Your task to perform on an android device: Set the phone to "Do not disturb". Image 0: 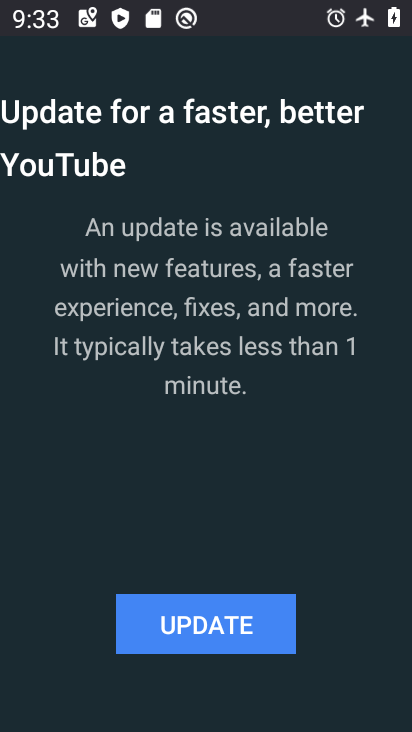
Step 0: press home button
Your task to perform on an android device: Set the phone to "Do not disturb". Image 1: 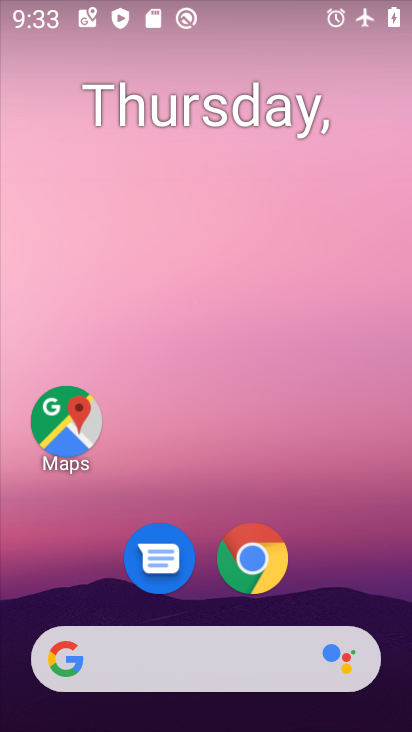
Step 1: drag from (375, 598) to (302, 152)
Your task to perform on an android device: Set the phone to "Do not disturb". Image 2: 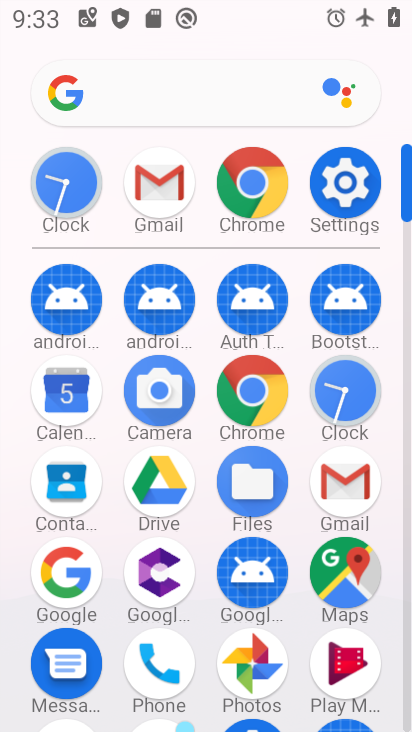
Step 2: click (405, 694)
Your task to perform on an android device: Set the phone to "Do not disturb". Image 3: 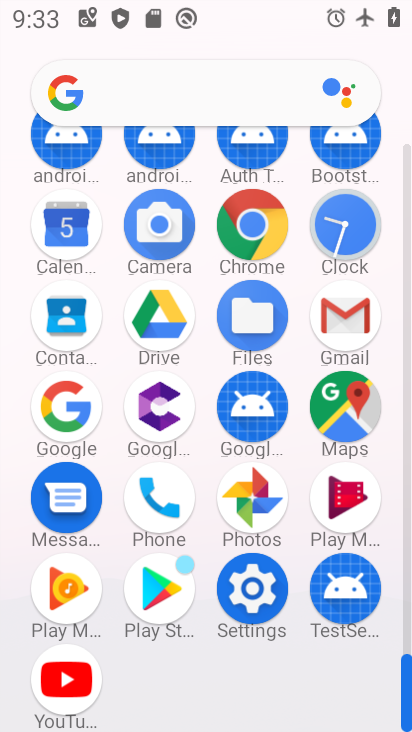
Step 3: click (252, 589)
Your task to perform on an android device: Set the phone to "Do not disturb". Image 4: 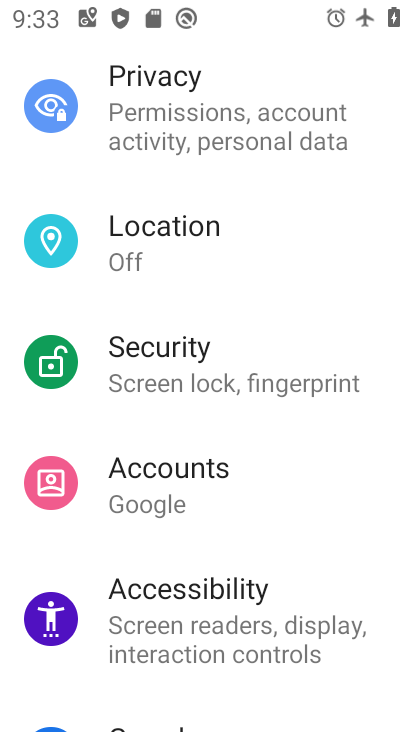
Step 4: drag from (347, 142) to (336, 479)
Your task to perform on an android device: Set the phone to "Do not disturb". Image 5: 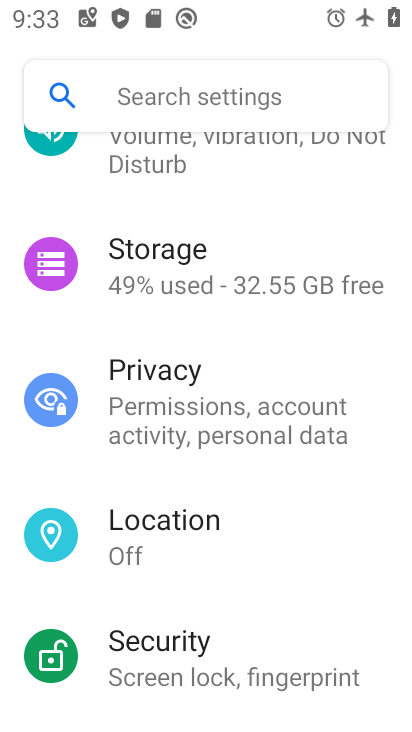
Step 5: drag from (363, 181) to (326, 486)
Your task to perform on an android device: Set the phone to "Do not disturb". Image 6: 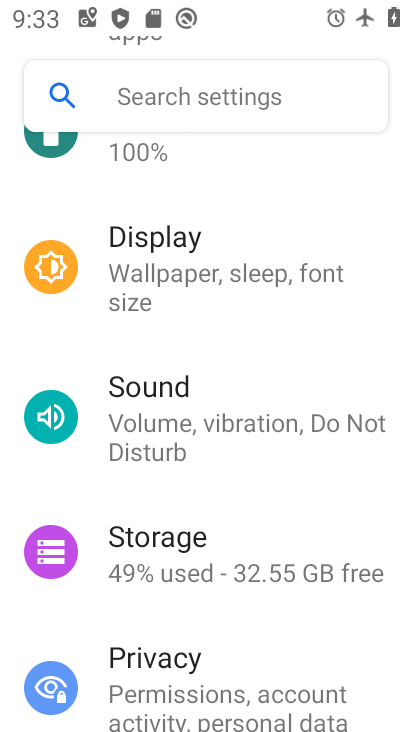
Step 6: drag from (251, 268) to (282, 224)
Your task to perform on an android device: Set the phone to "Do not disturb". Image 7: 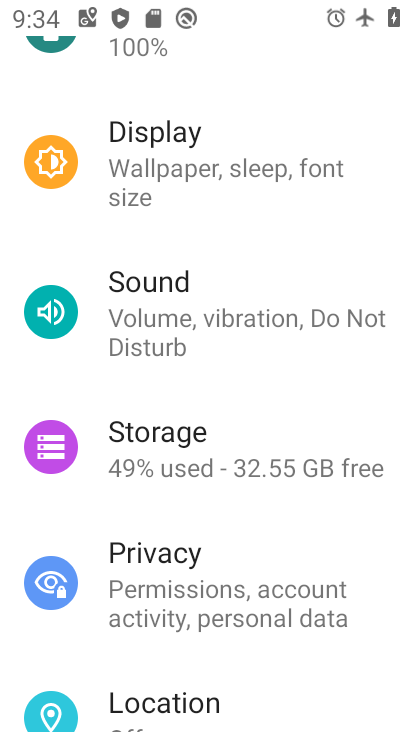
Step 7: click (170, 290)
Your task to perform on an android device: Set the phone to "Do not disturb". Image 8: 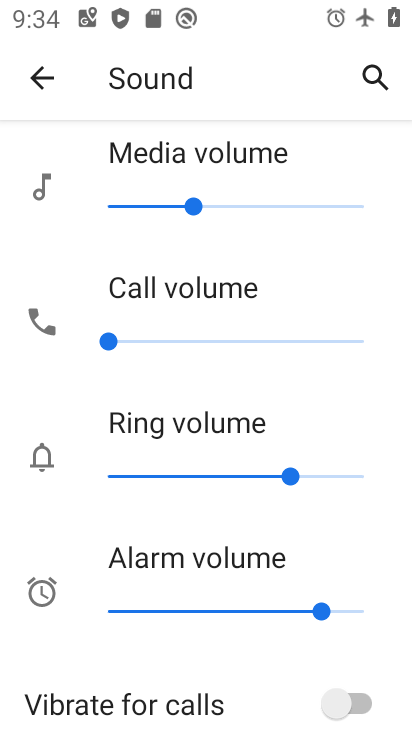
Step 8: drag from (347, 651) to (303, 175)
Your task to perform on an android device: Set the phone to "Do not disturb". Image 9: 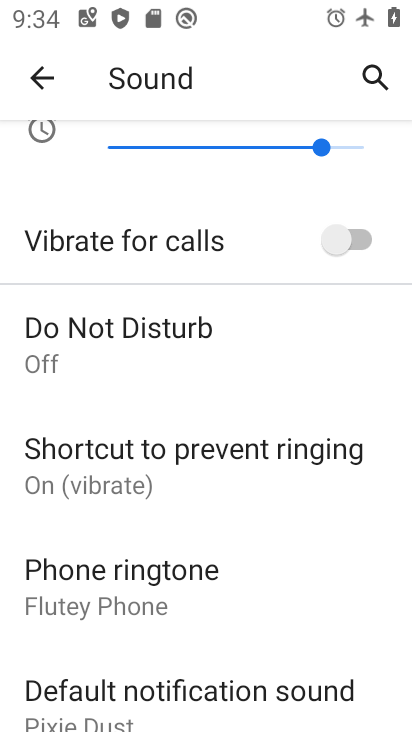
Step 9: click (95, 330)
Your task to perform on an android device: Set the phone to "Do not disturb". Image 10: 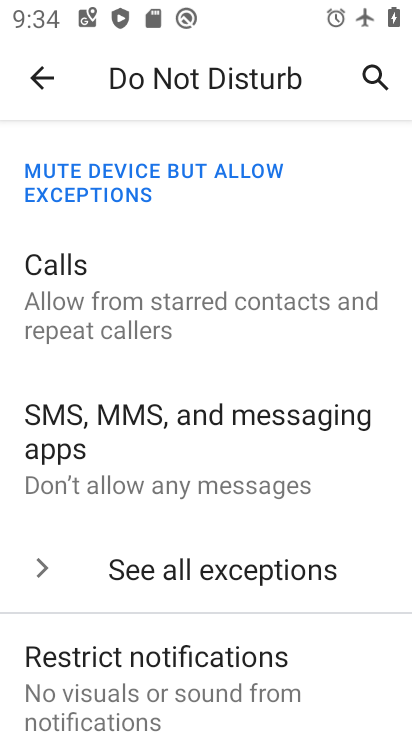
Step 10: drag from (227, 673) to (287, 247)
Your task to perform on an android device: Set the phone to "Do not disturb". Image 11: 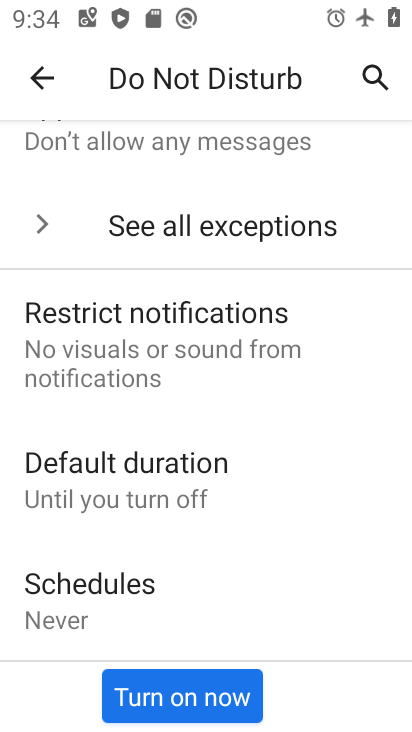
Step 11: click (173, 696)
Your task to perform on an android device: Set the phone to "Do not disturb". Image 12: 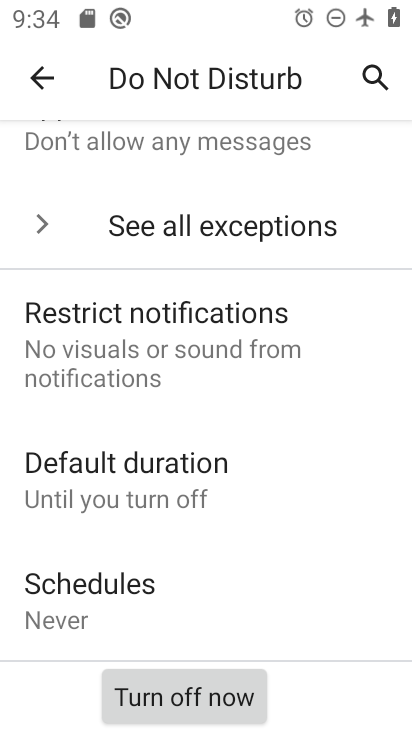
Step 12: task complete